Your task to perform on an android device: Check the weather Image 0: 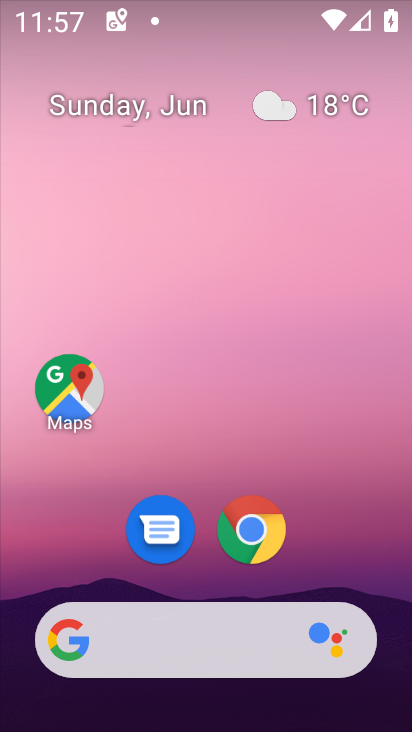
Step 0: drag from (333, 563) to (291, 566)
Your task to perform on an android device: Check the weather Image 1: 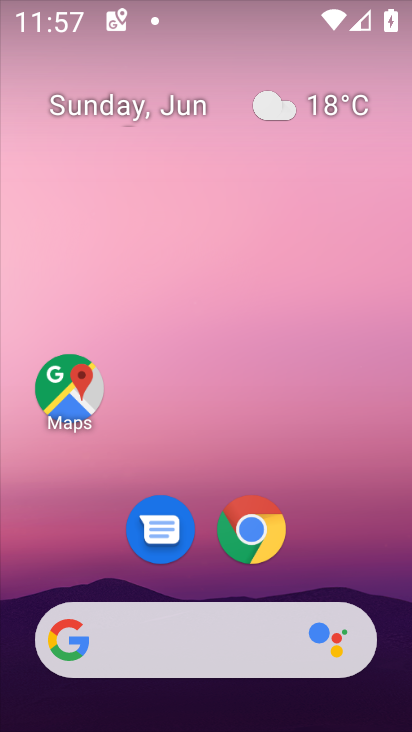
Step 1: click (322, 108)
Your task to perform on an android device: Check the weather Image 2: 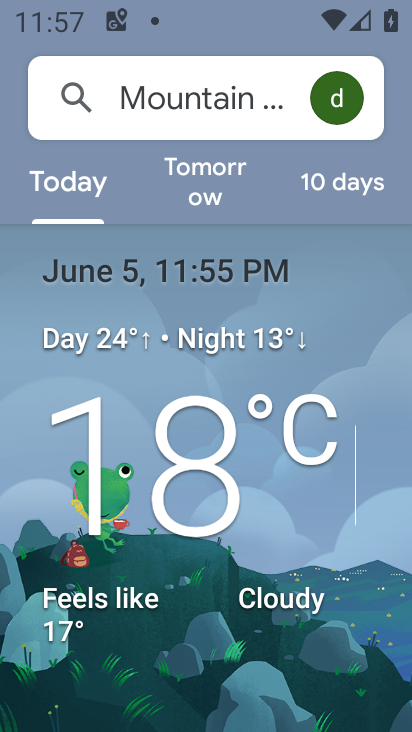
Step 2: task complete